Your task to perform on an android device: turn on priority inbox in the gmail app Image 0: 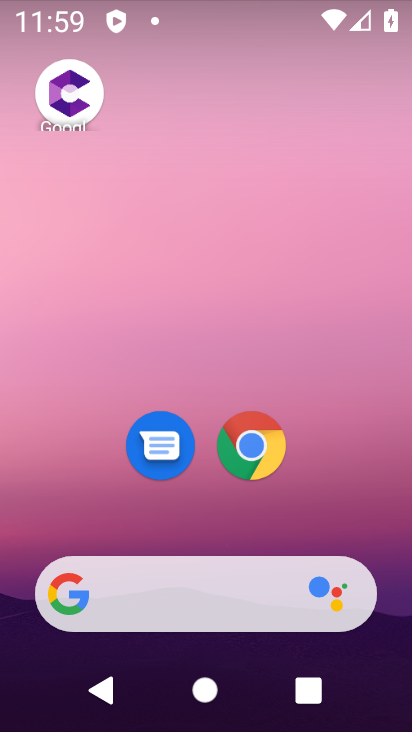
Step 0: drag from (76, 538) to (142, 194)
Your task to perform on an android device: turn on priority inbox in the gmail app Image 1: 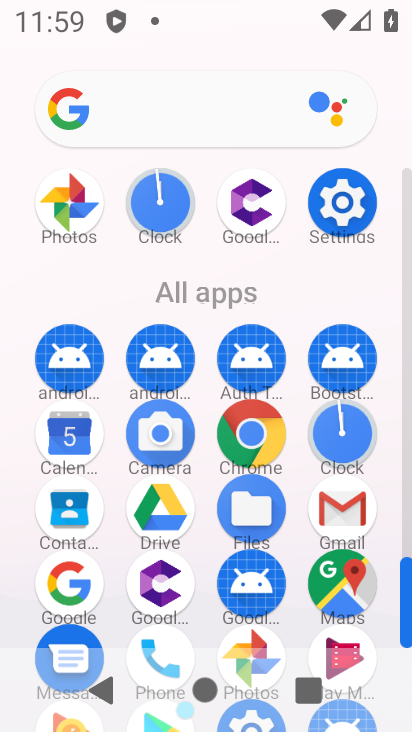
Step 1: click (342, 508)
Your task to perform on an android device: turn on priority inbox in the gmail app Image 2: 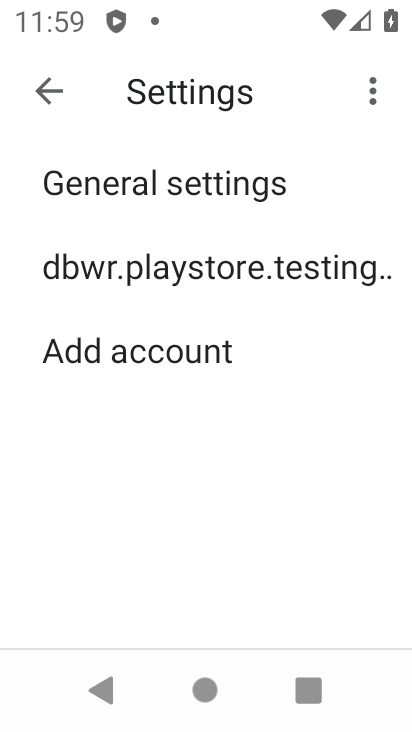
Step 2: click (231, 285)
Your task to perform on an android device: turn on priority inbox in the gmail app Image 3: 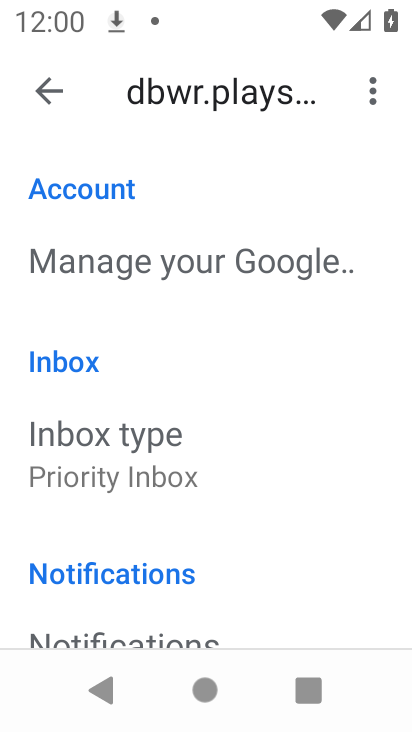
Step 3: drag from (203, 613) to (296, 242)
Your task to perform on an android device: turn on priority inbox in the gmail app Image 4: 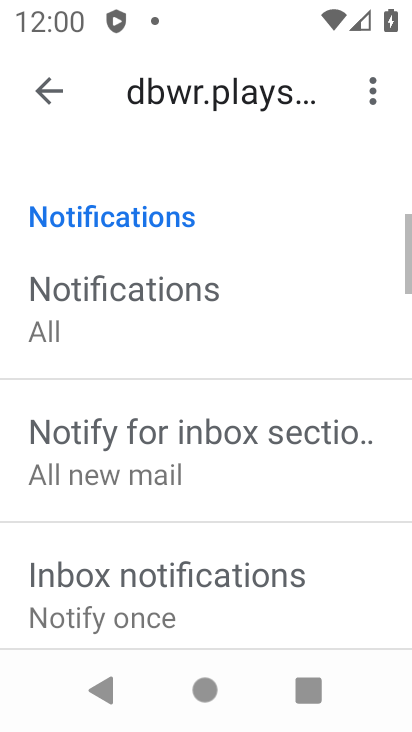
Step 4: drag from (185, 579) to (284, 191)
Your task to perform on an android device: turn on priority inbox in the gmail app Image 5: 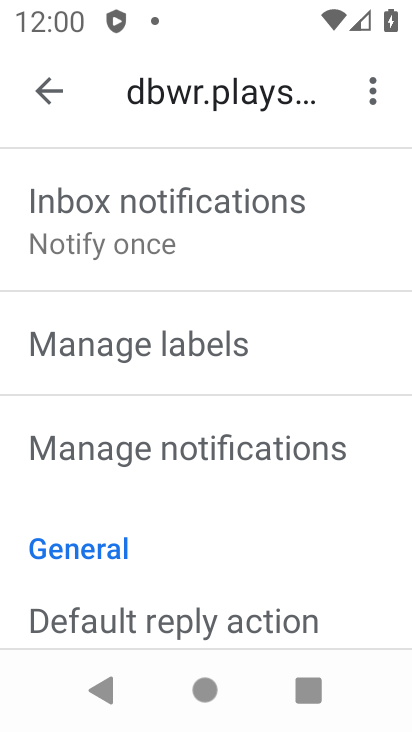
Step 5: drag from (121, 598) to (232, 202)
Your task to perform on an android device: turn on priority inbox in the gmail app Image 6: 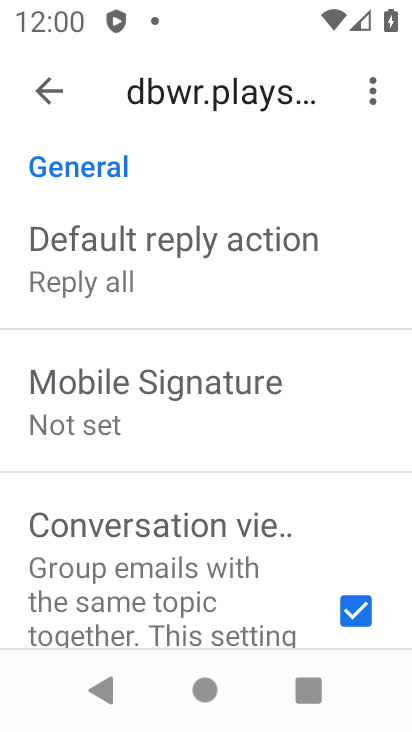
Step 6: drag from (167, 575) to (253, 195)
Your task to perform on an android device: turn on priority inbox in the gmail app Image 7: 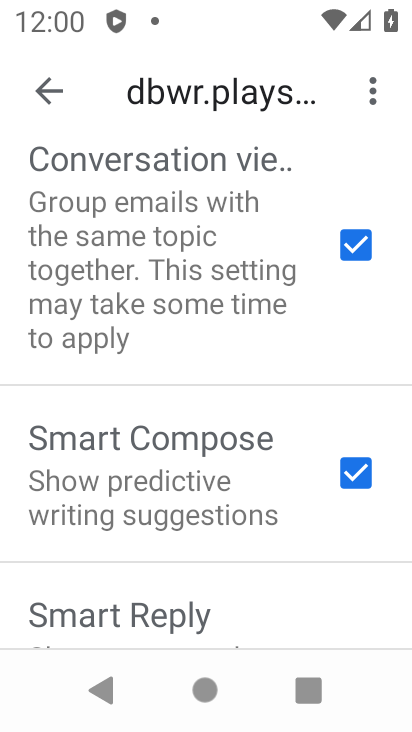
Step 7: drag from (153, 593) to (221, 660)
Your task to perform on an android device: turn on priority inbox in the gmail app Image 8: 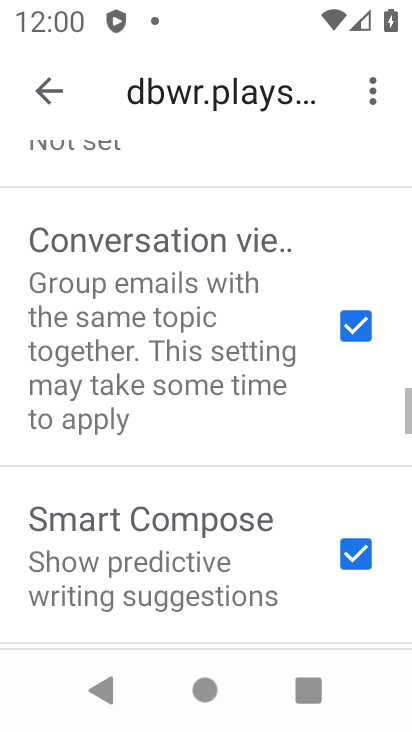
Step 8: drag from (210, 358) to (208, 714)
Your task to perform on an android device: turn on priority inbox in the gmail app Image 9: 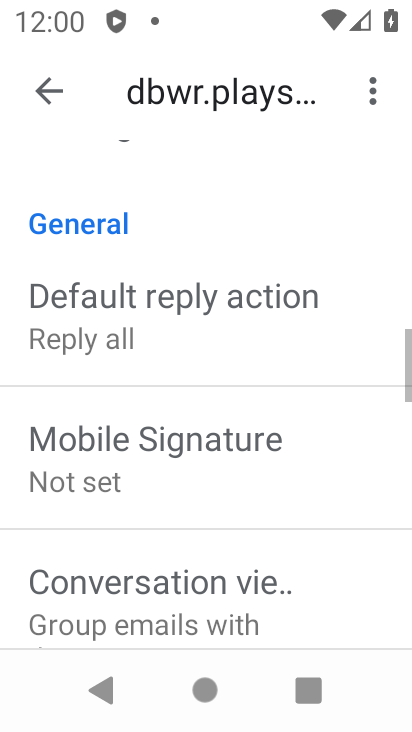
Step 9: drag from (202, 350) to (220, 726)
Your task to perform on an android device: turn on priority inbox in the gmail app Image 10: 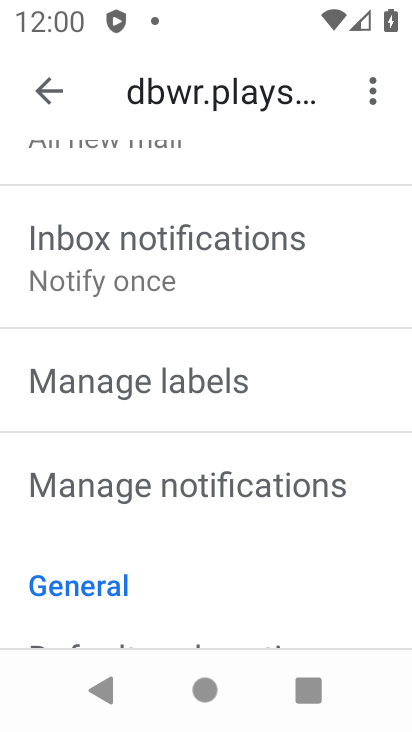
Step 10: drag from (189, 289) to (152, 692)
Your task to perform on an android device: turn on priority inbox in the gmail app Image 11: 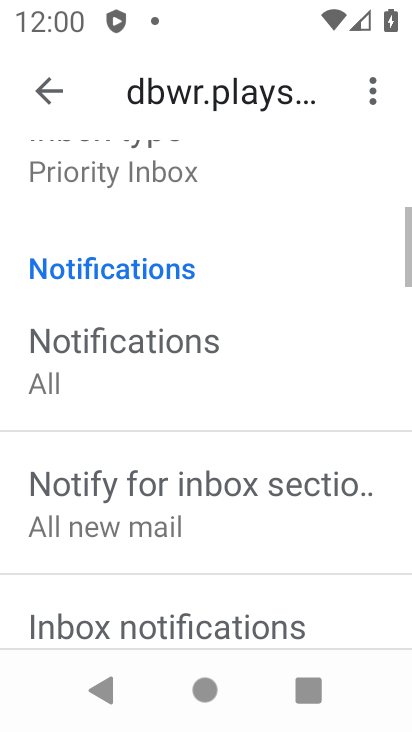
Step 11: drag from (177, 269) to (176, 592)
Your task to perform on an android device: turn on priority inbox in the gmail app Image 12: 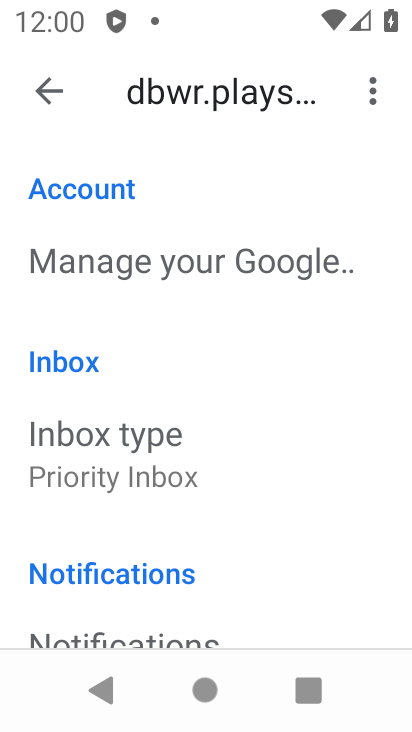
Step 12: click (134, 480)
Your task to perform on an android device: turn on priority inbox in the gmail app Image 13: 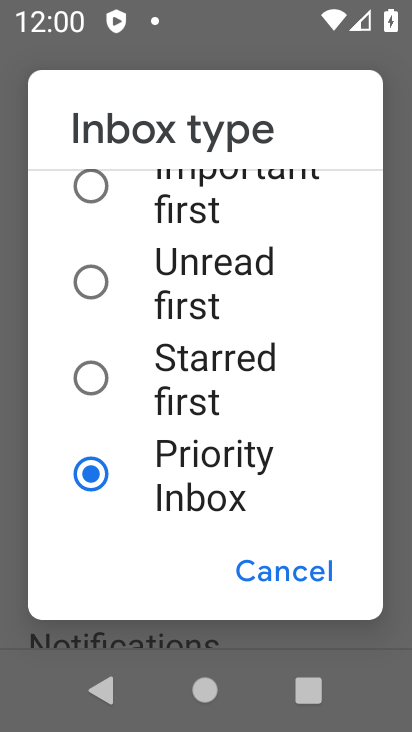
Step 13: click (231, 314)
Your task to perform on an android device: turn on priority inbox in the gmail app Image 14: 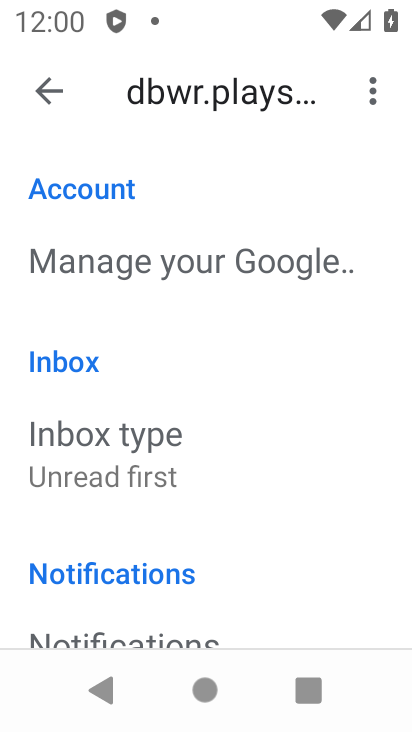
Step 14: task complete